Your task to perform on an android device: check storage Image 0: 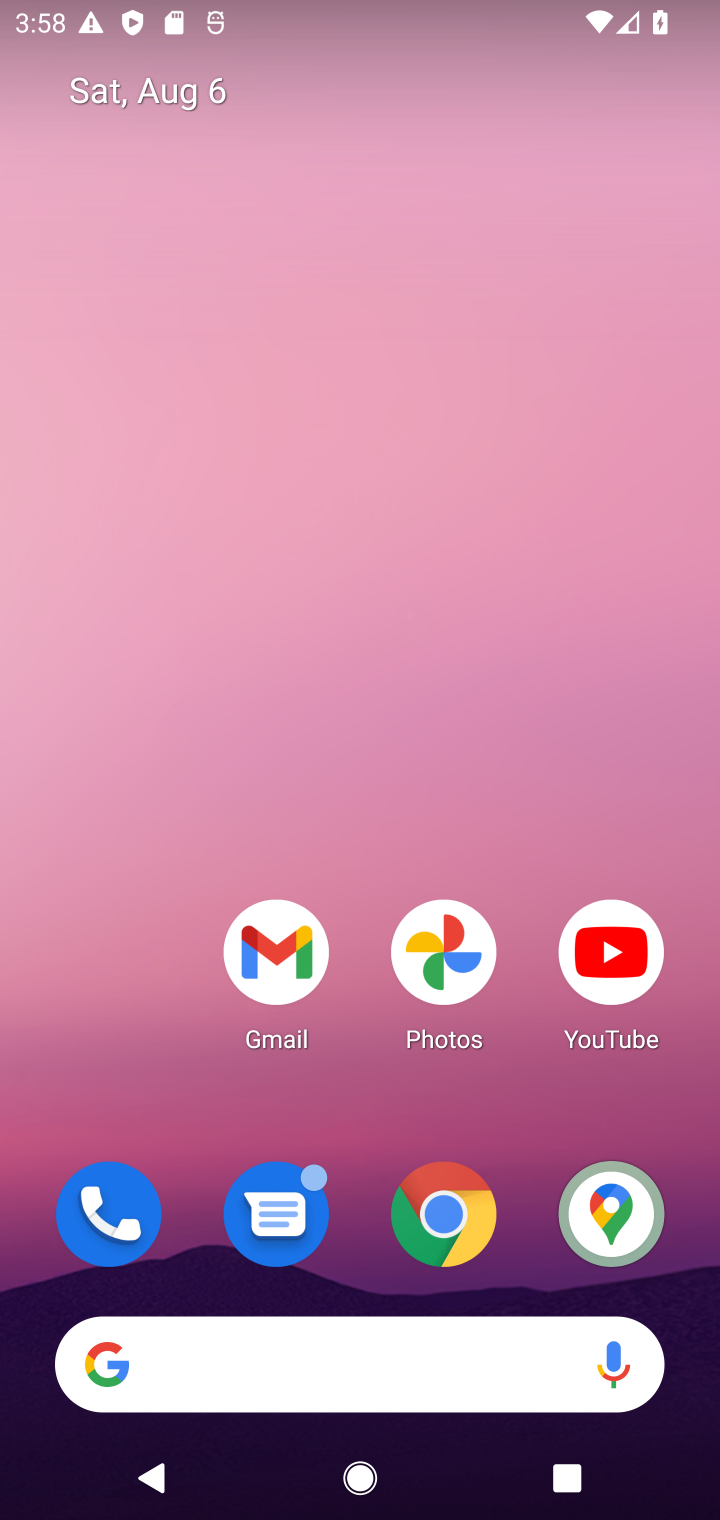
Step 0: click (339, 1270)
Your task to perform on an android device: check storage Image 1: 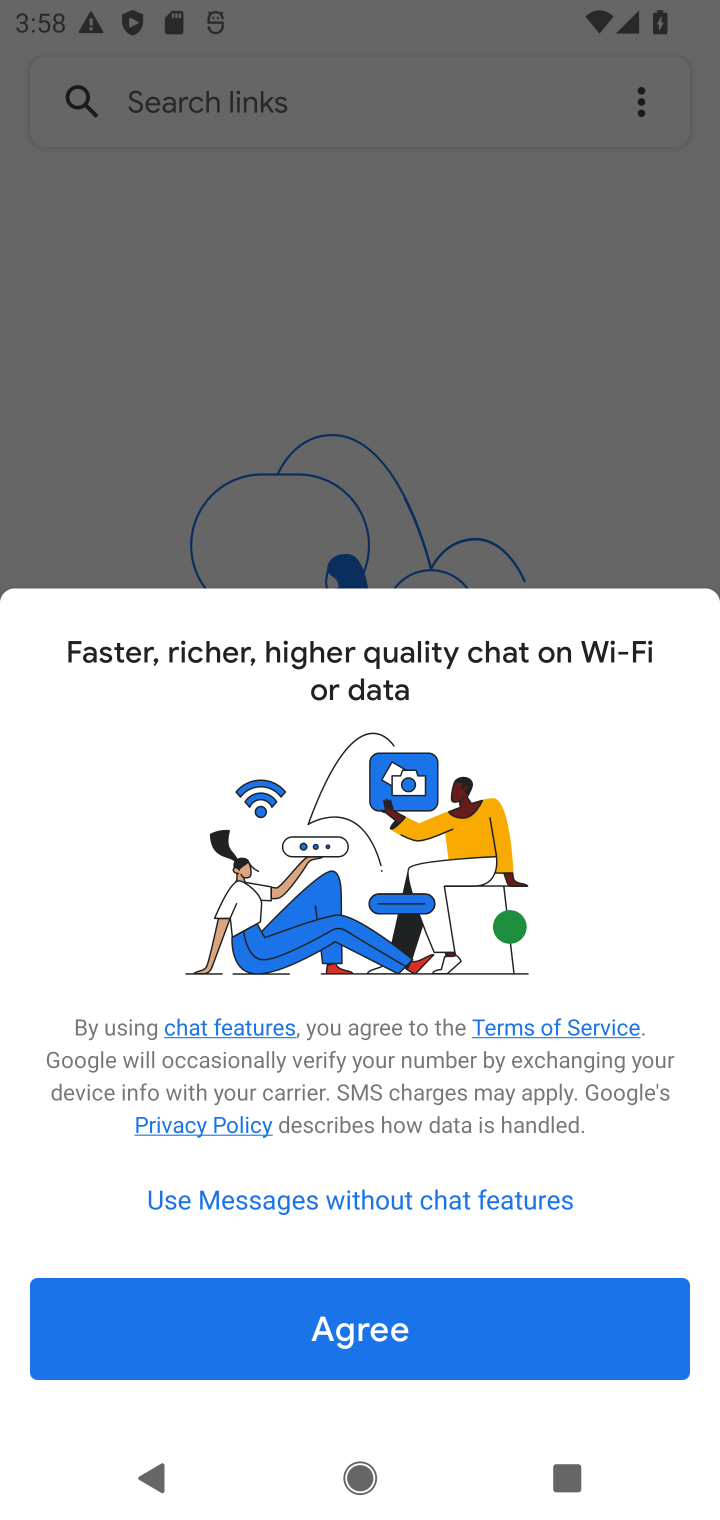
Step 1: press home button
Your task to perform on an android device: check storage Image 2: 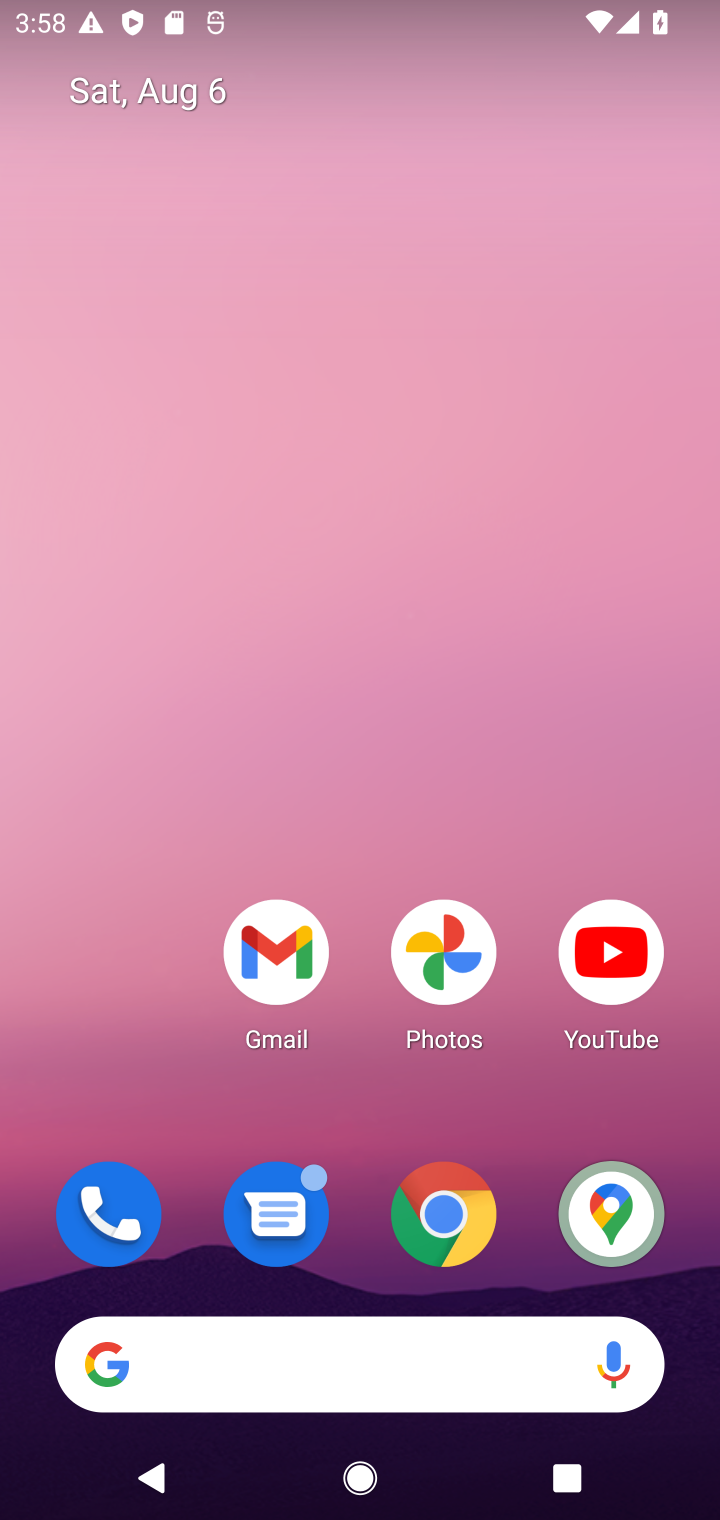
Step 2: drag from (373, 531) to (445, 88)
Your task to perform on an android device: check storage Image 3: 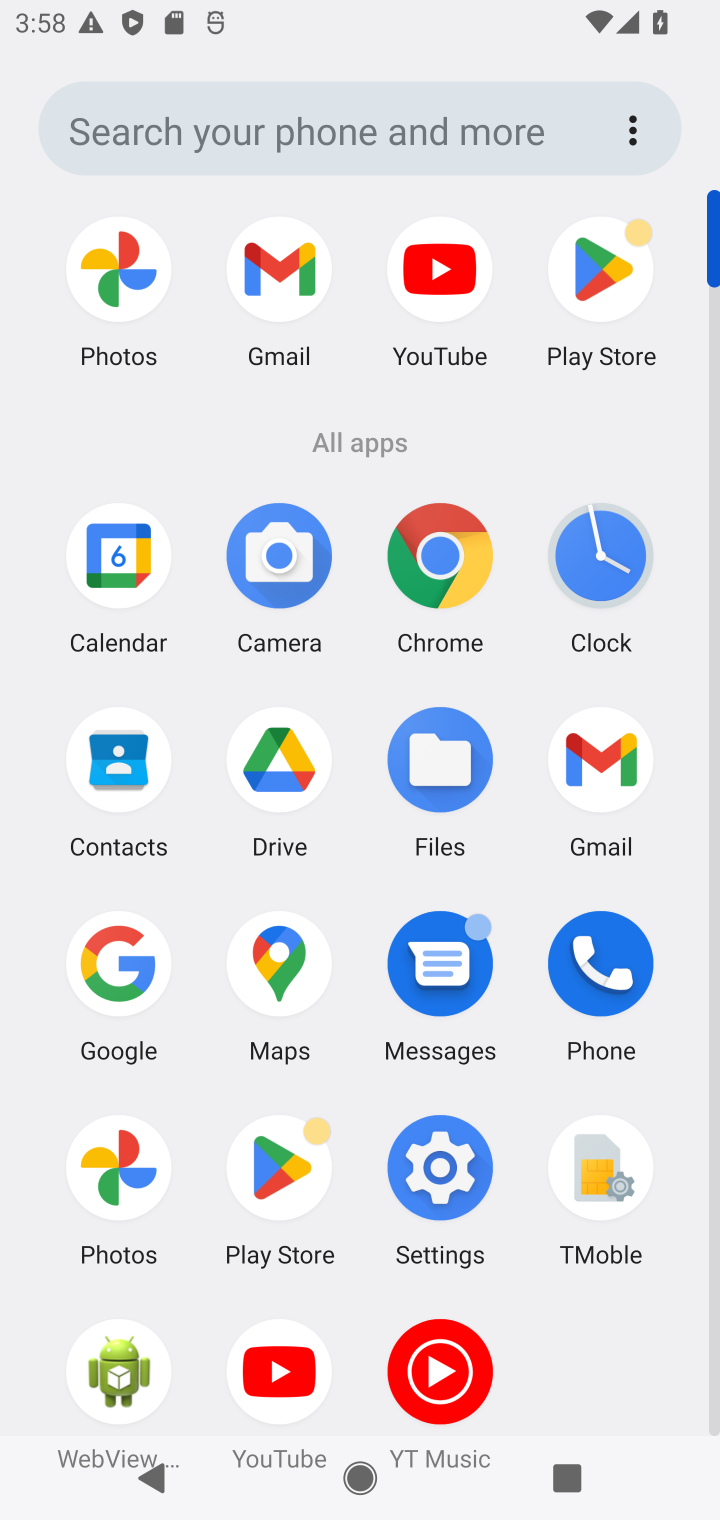
Step 3: click (429, 1161)
Your task to perform on an android device: check storage Image 4: 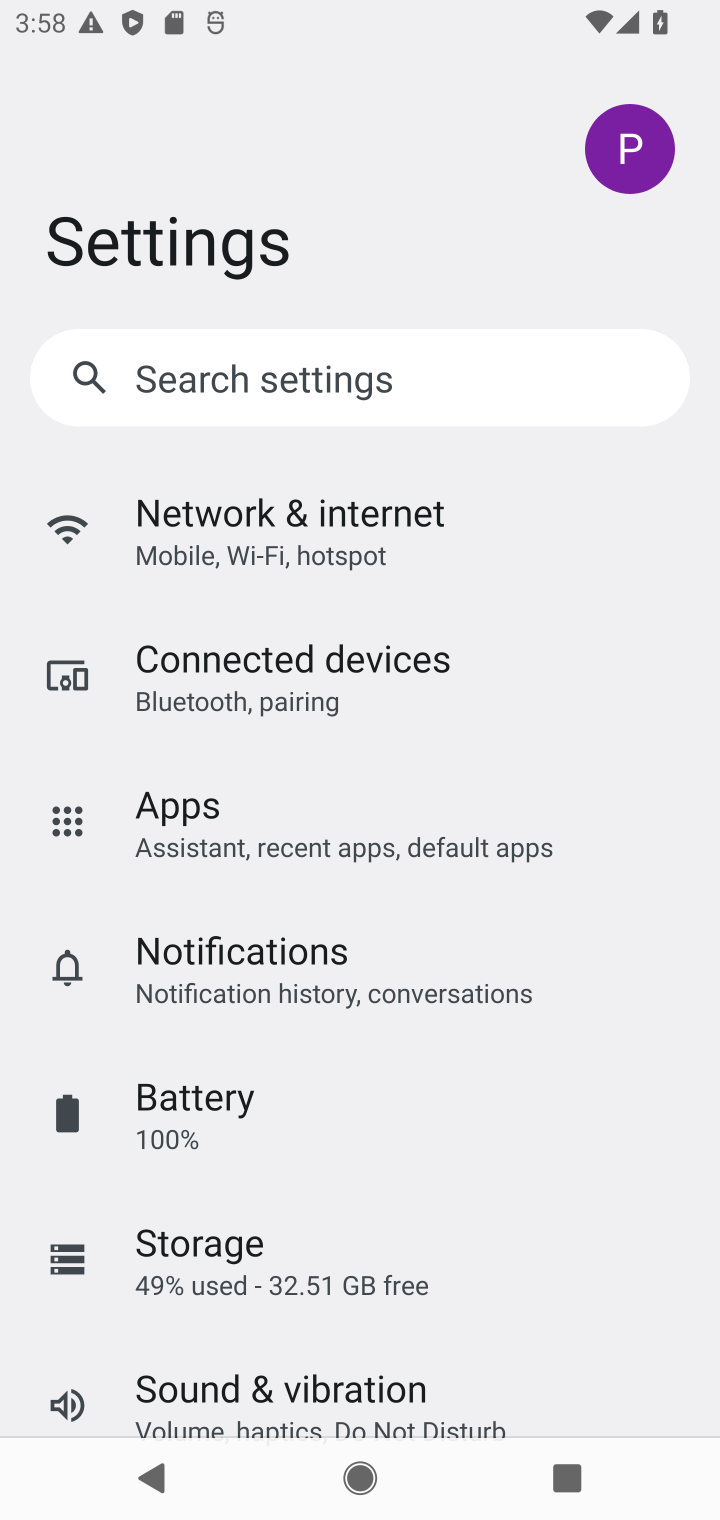
Step 4: click (216, 1279)
Your task to perform on an android device: check storage Image 5: 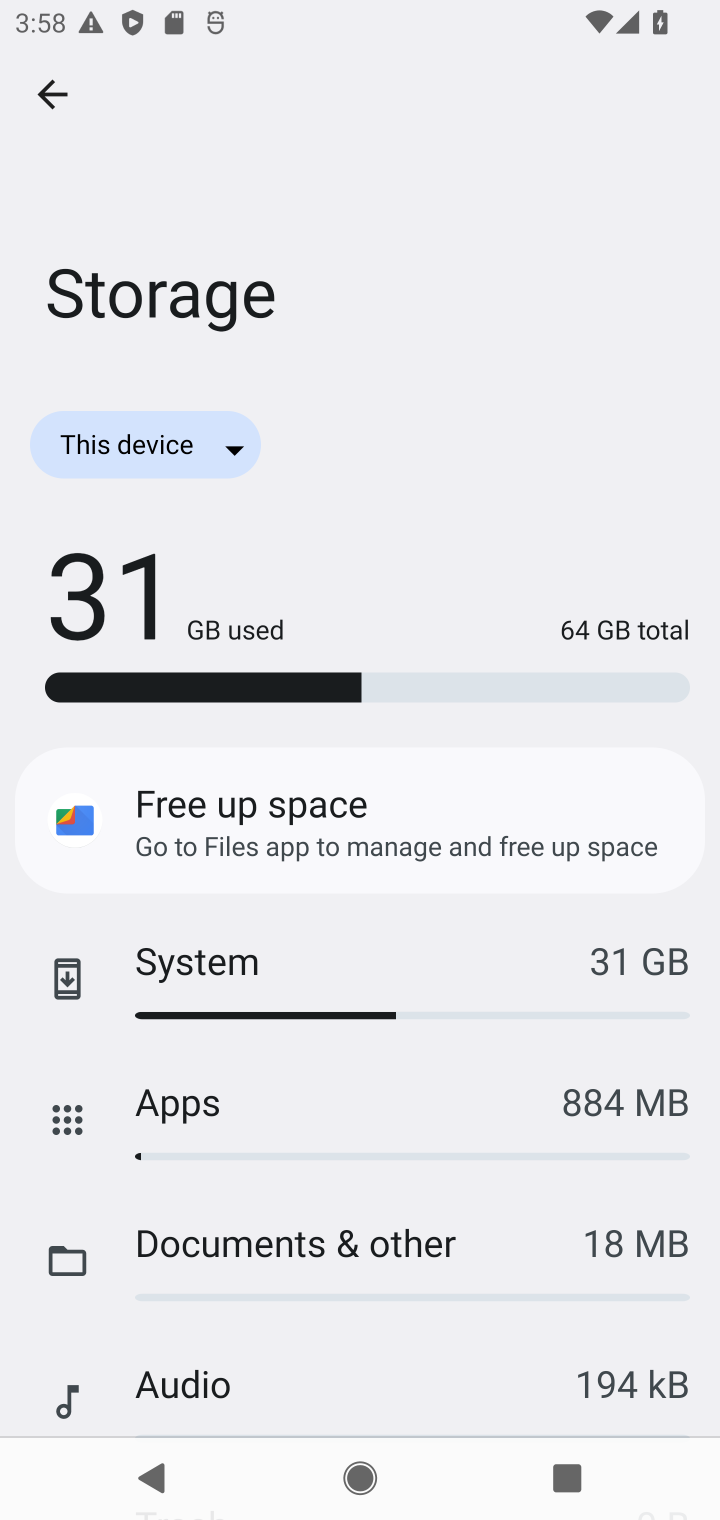
Step 5: task complete